Your task to perform on an android device: uninstall "PlayWell" Image 0: 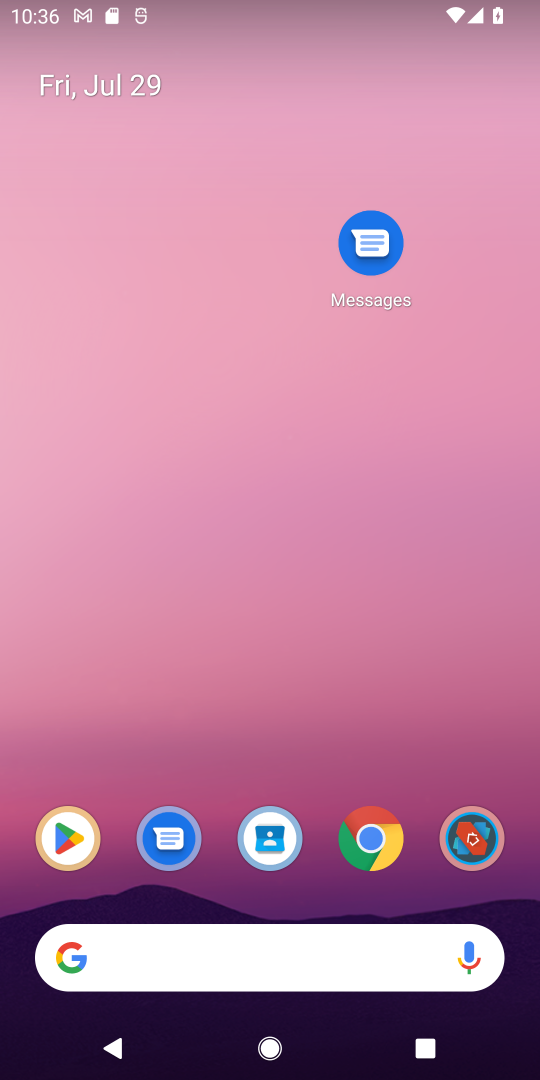
Step 0: click (80, 838)
Your task to perform on an android device: uninstall "PlayWell" Image 1: 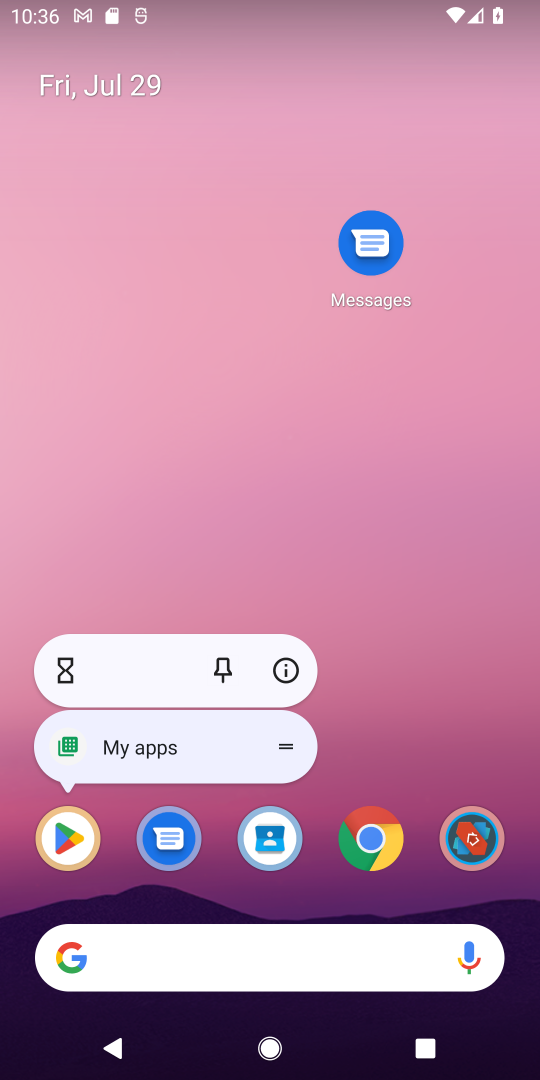
Step 1: click (80, 839)
Your task to perform on an android device: uninstall "PlayWell" Image 2: 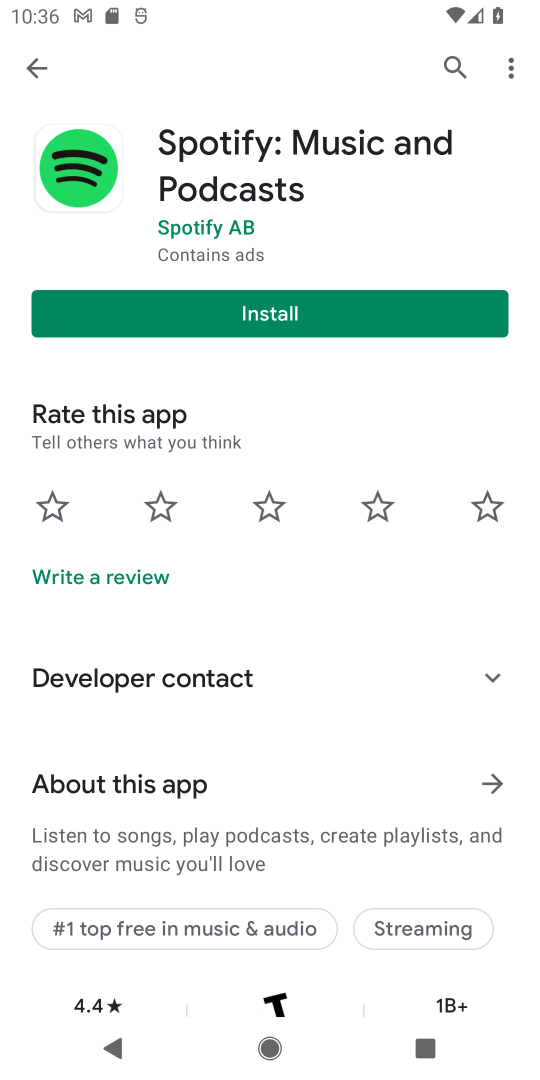
Step 2: click (29, 63)
Your task to perform on an android device: uninstall "PlayWell" Image 3: 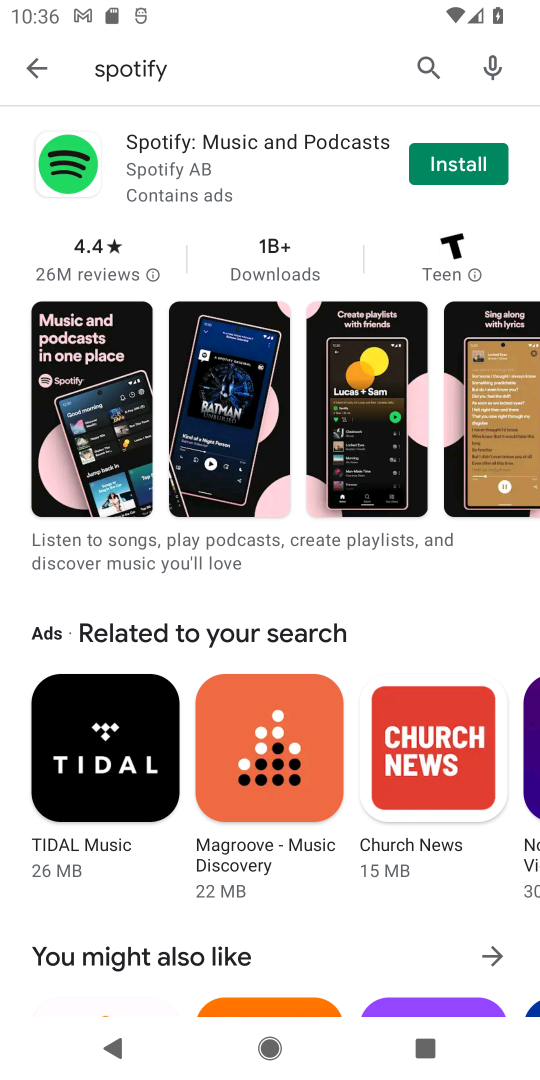
Step 3: click (206, 76)
Your task to perform on an android device: uninstall "PlayWell" Image 4: 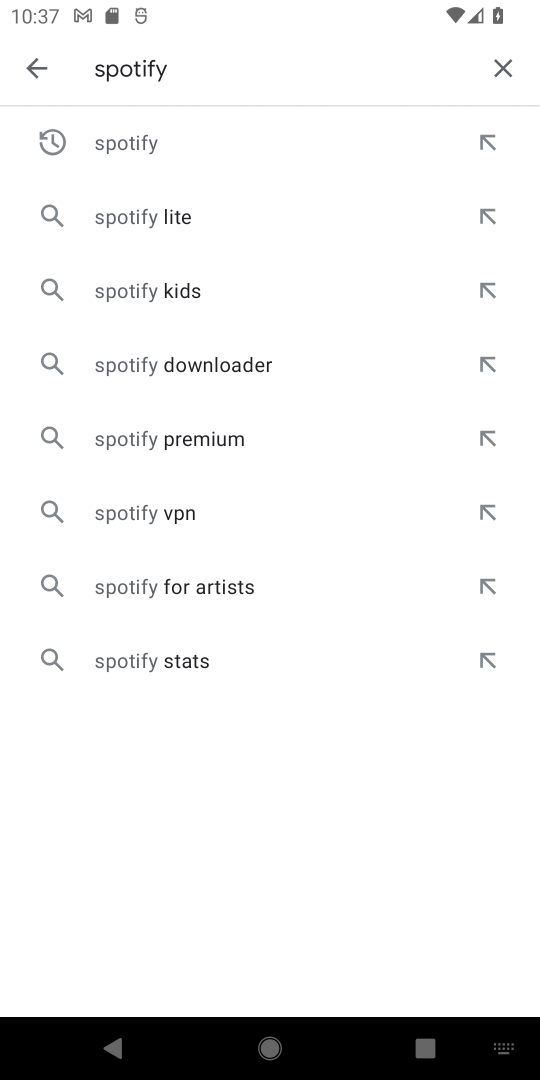
Step 4: click (496, 66)
Your task to perform on an android device: uninstall "PlayWell" Image 5: 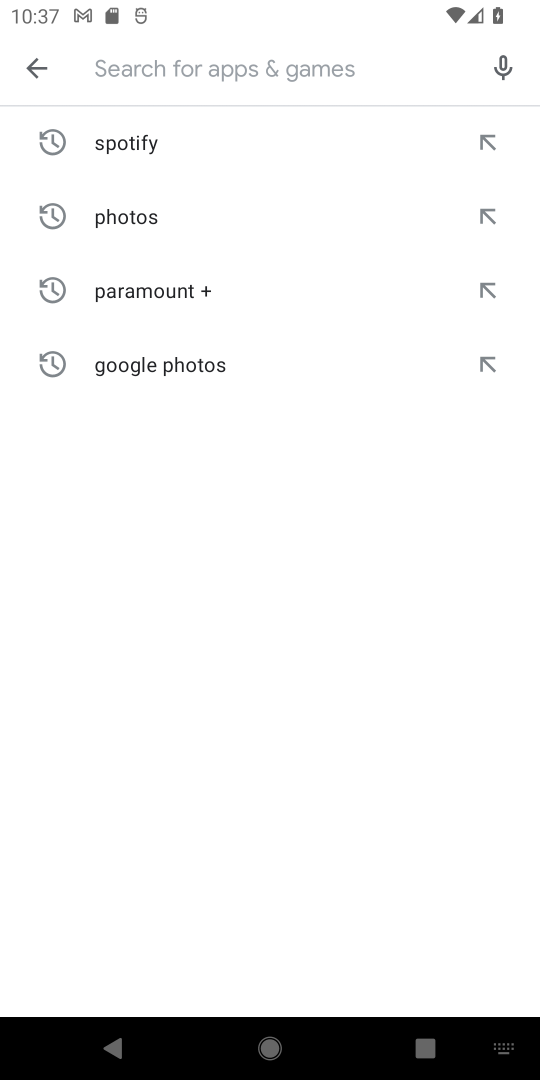
Step 5: type "PLaywell"
Your task to perform on an android device: uninstall "PlayWell" Image 6: 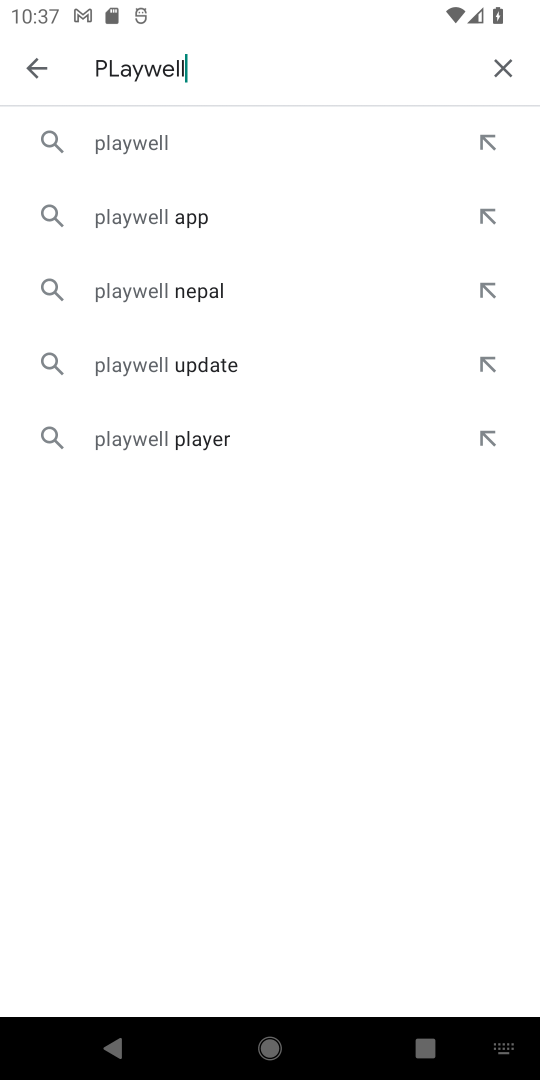
Step 6: click (147, 155)
Your task to perform on an android device: uninstall "PlayWell" Image 7: 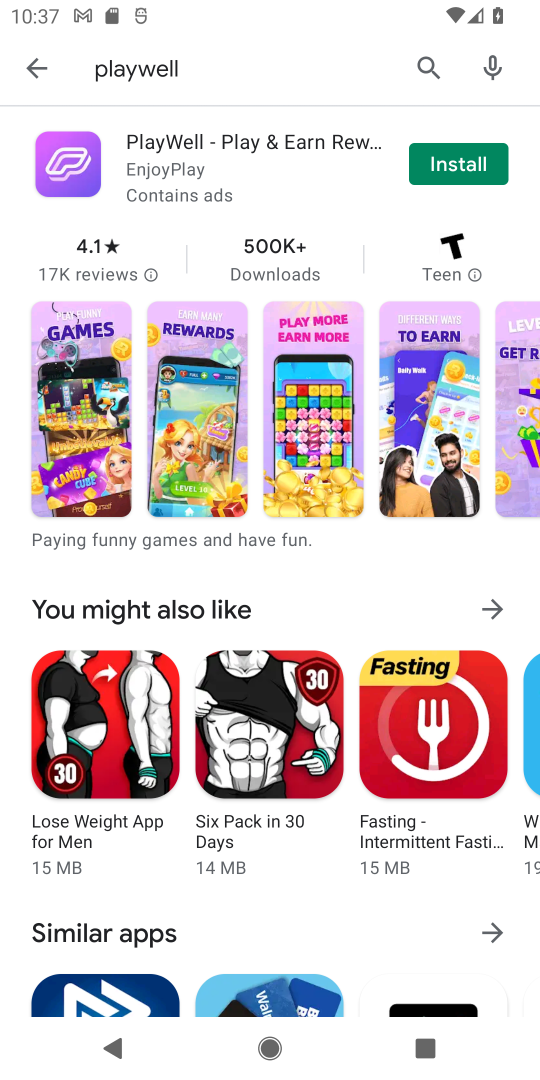
Step 7: task complete